Your task to perform on an android device: Go to Amazon Image 0: 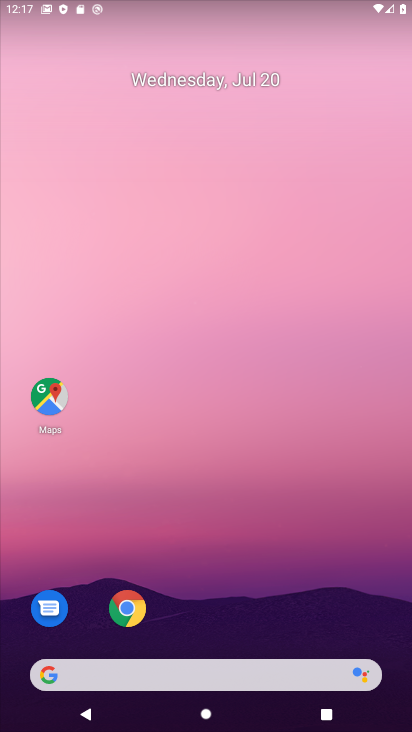
Step 0: drag from (167, 658) to (168, 204)
Your task to perform on an android device: Go to Amazon Image 1: 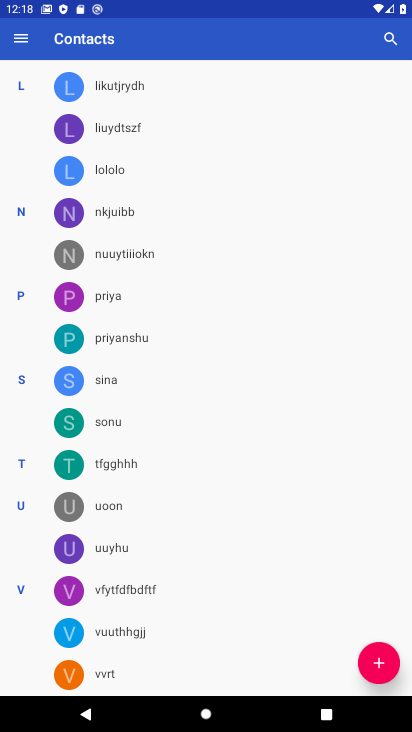
Step 1: press home button
Your task to perform on an android device: Go to Amazon Image 2: 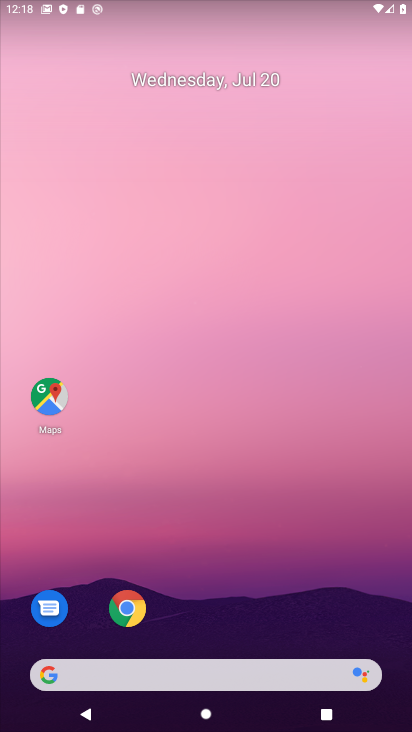
Step 2: drag from (213, 639) to (208, 270)
Your task to perform on an android device: Go to Amazon Image 3: 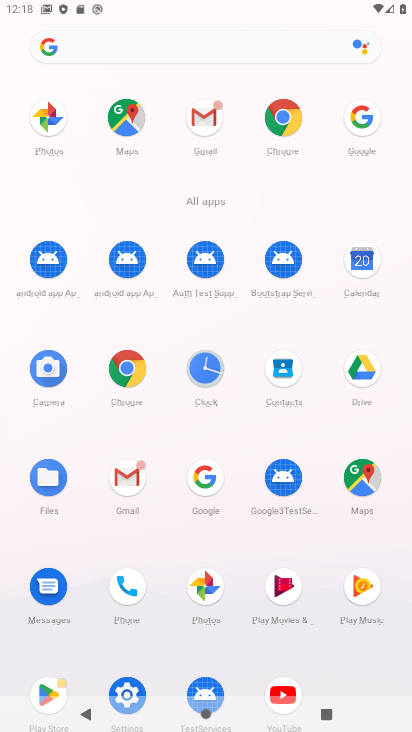
Step 3: click (203, 480)
Your task to perform on an android device: Go to Amazon Image 4: 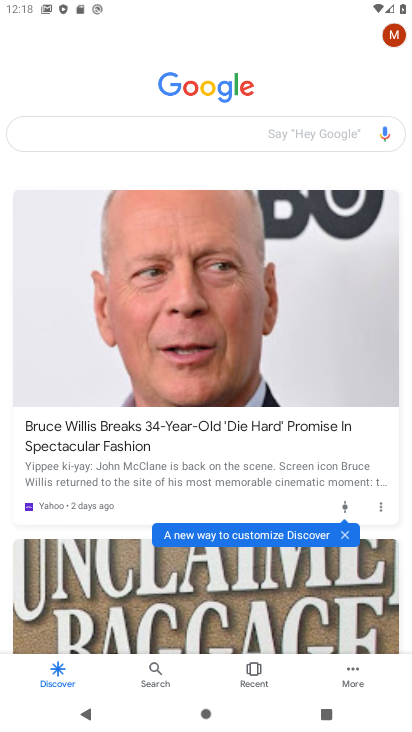
Step 4: drag from (103, 139) to (48, 139)
Your task to perform on an android device: Go to Amazon Image 5: 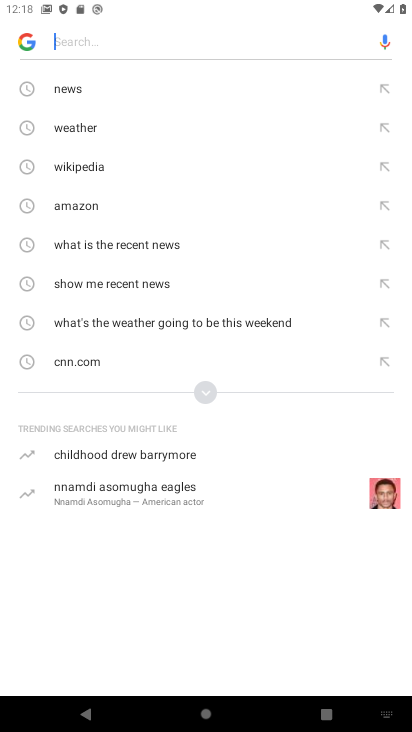
Step 5: click (86, 219)
Your task to perform on an android device: Go to Amazon Image 6: 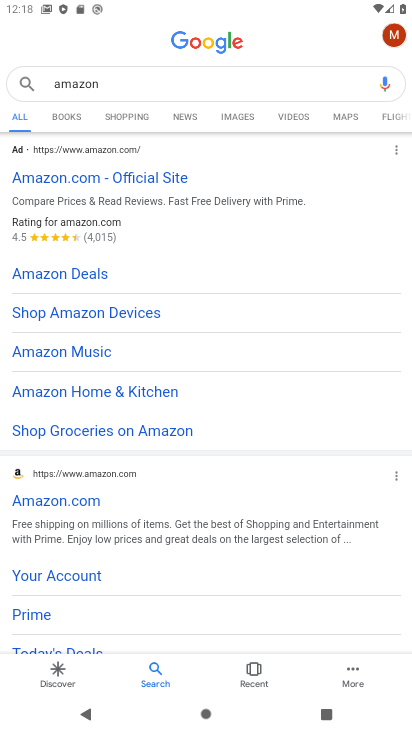
Step 6: click (64, 176)
Your task to perform on an android device: Go to Amazon Image 7: 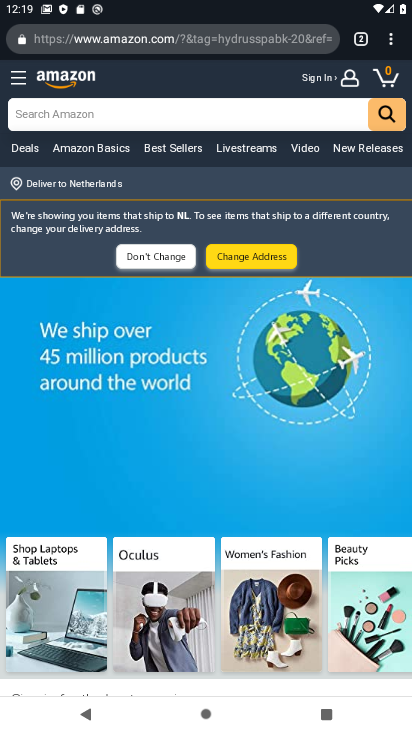
Step 7: task complete